Your task to perform on an android device: Empty the shopping cart on bestbuy. Add alienware area 51 to the cart on bestbuy Image 0: 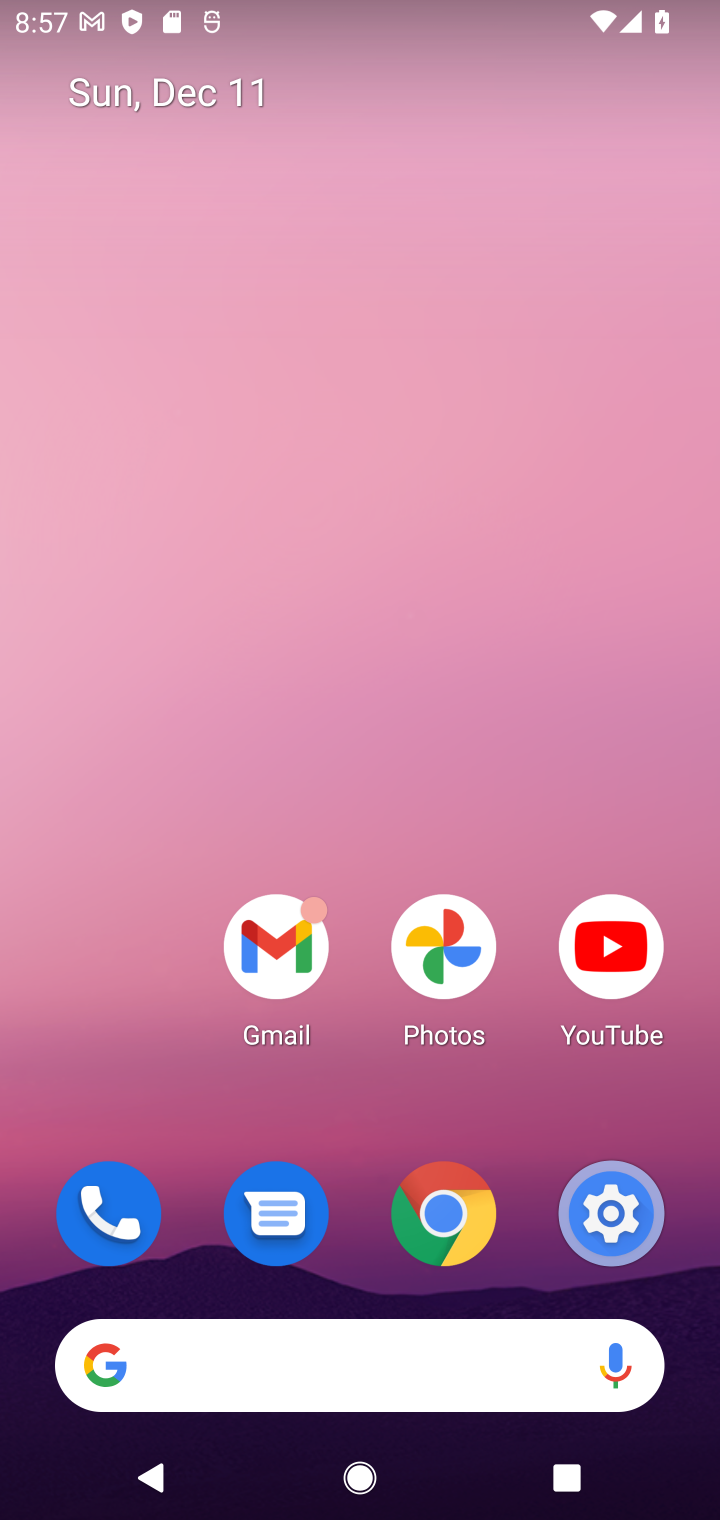
Step 0: click (357, 1383)
Your task to perform on an android device: Empty the shopping cart on bestbuy. Add alienware area 51 to the cart on bestbuy Image 1: 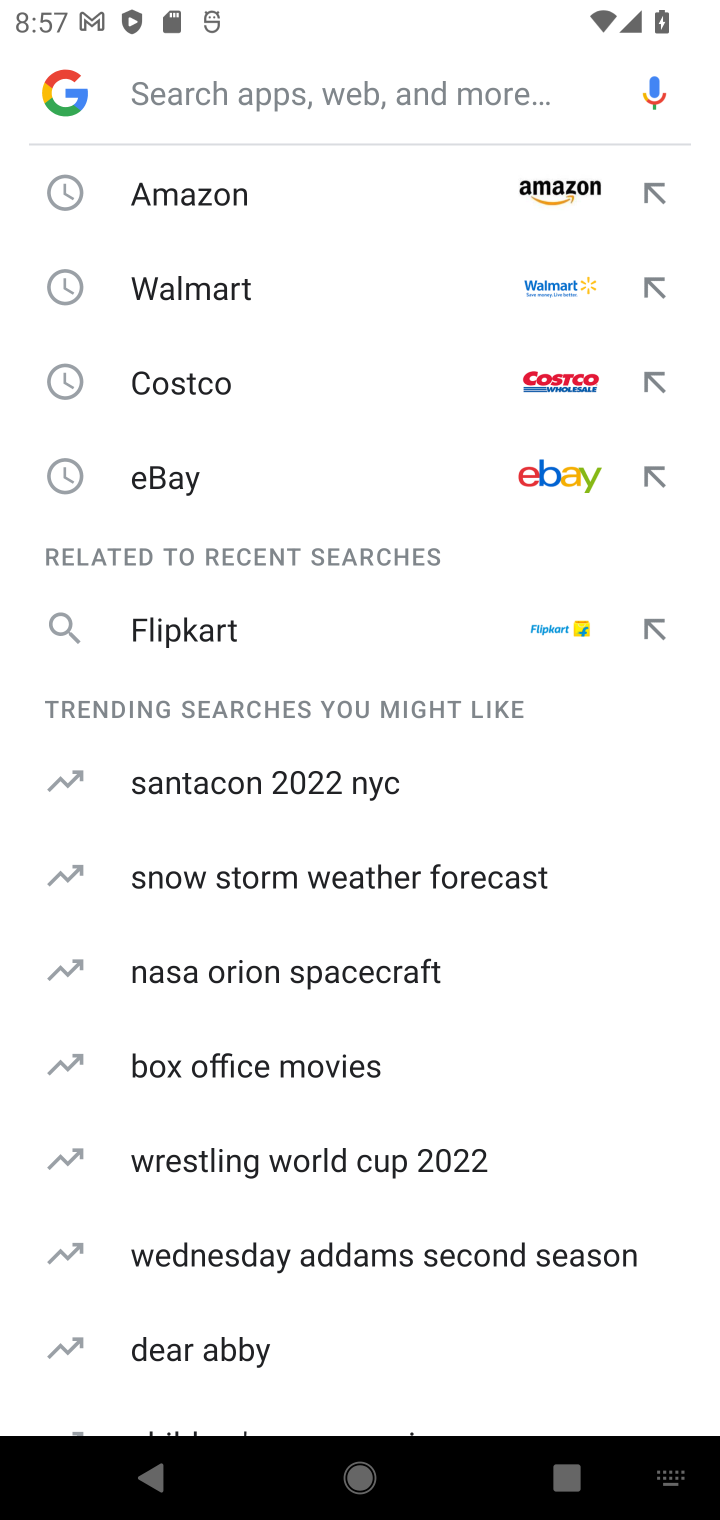
Step 1: type "bestbuy"
Your task to perform on an android device: Empty the shopping cart on bestbuy. Add alienware area 51 to the cart on bestbuy Image 2: 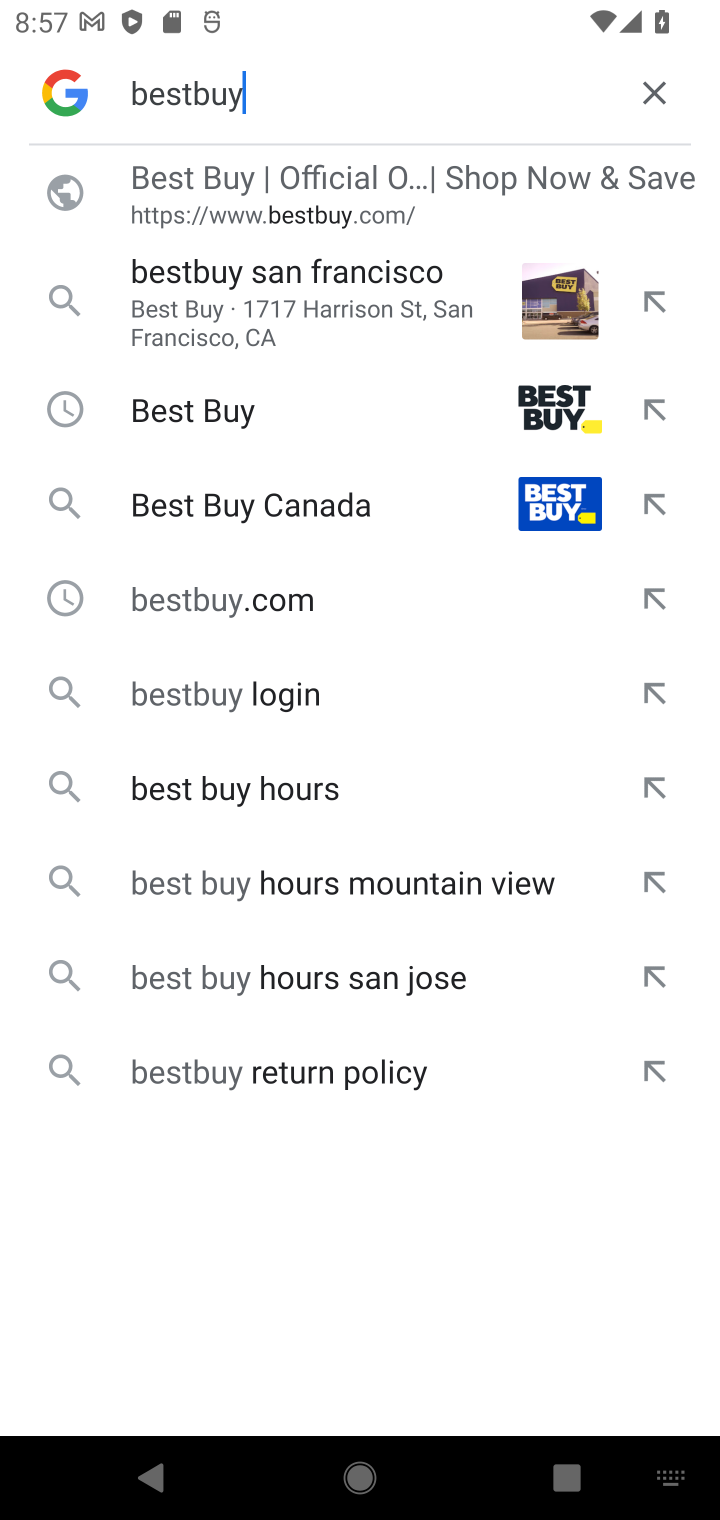
Step 2: click (329, 237)
Your task to perform on an android device: Empty the shopping cart on bestbuy. Add alienware area 51 to the cart on bestbuy Image 3: 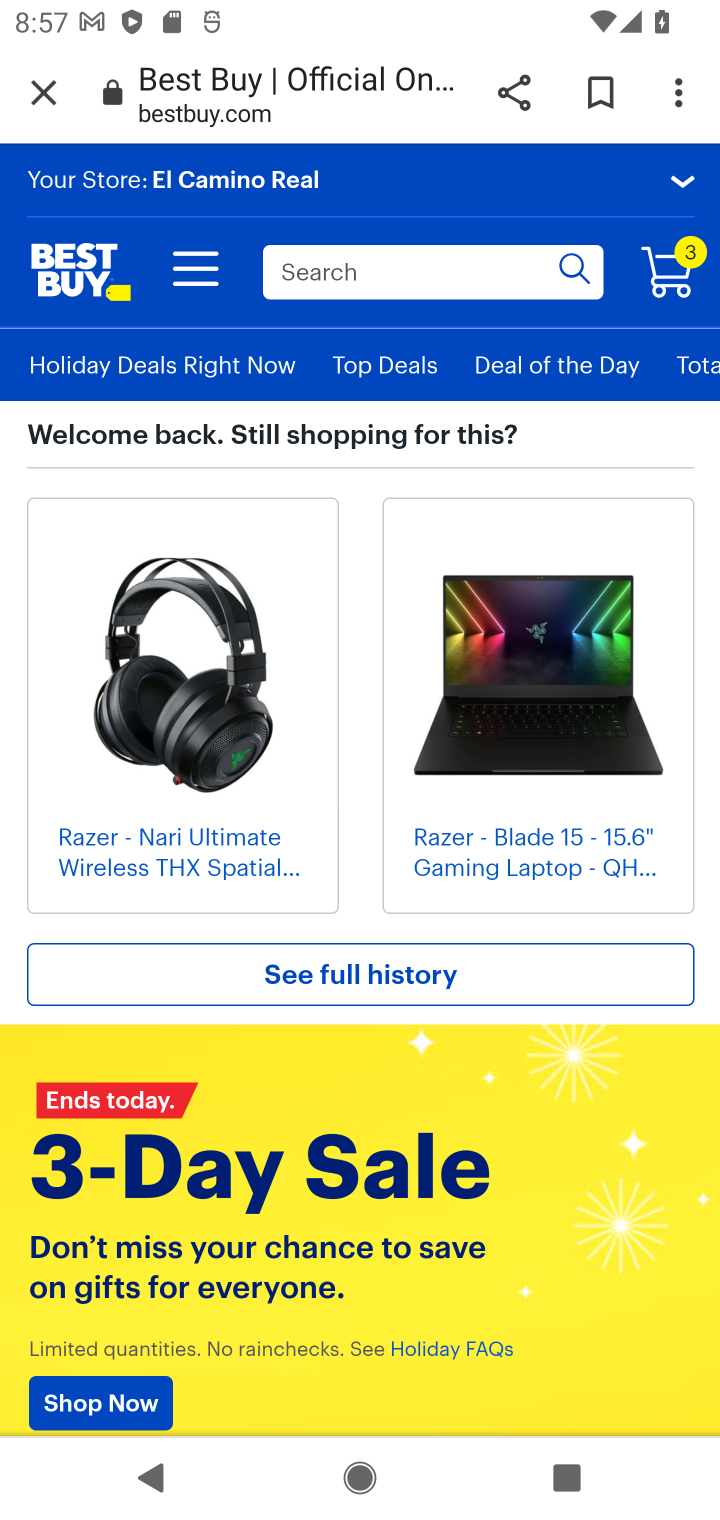
Step 3: click (421, 283)
Your task to perform on an android device: Empty the shopping cart on bestbuy. Add alienware area 51 to the cart on bestbuy Image 4: 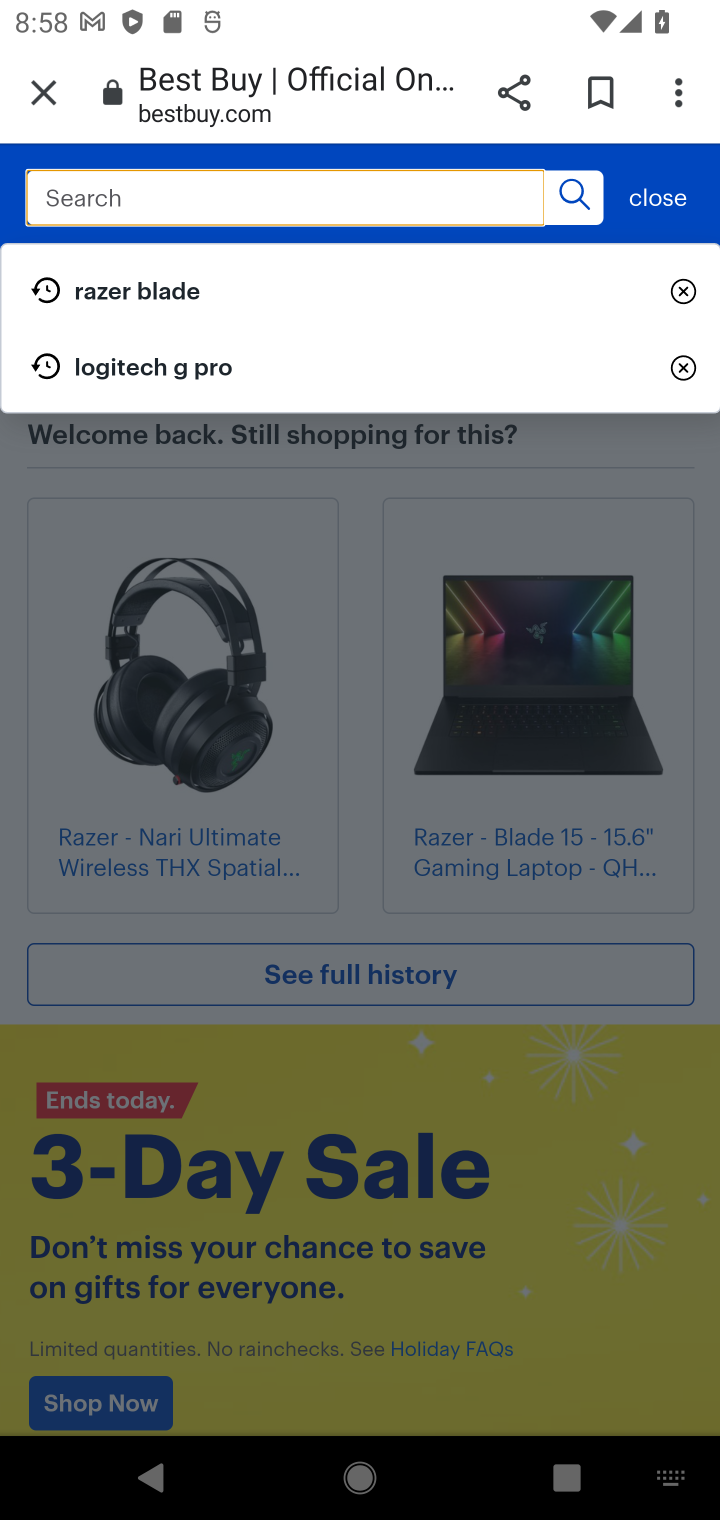
Step 4: type "alienware area 51"
Your task to perform on an android device: Empty the shopping cart on bestbuy. Add alienware area 51 to the cart on bestbuy Image 5: 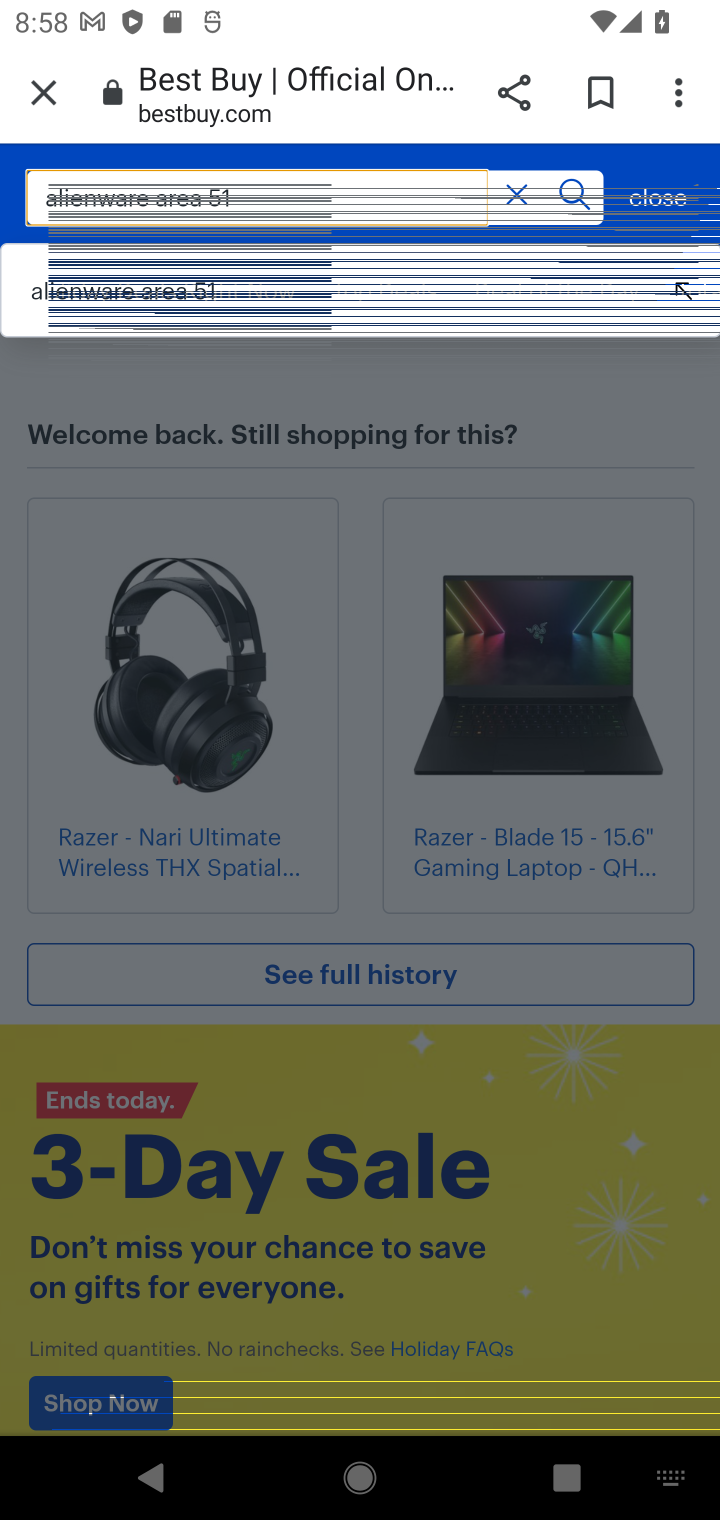
Step 5: click (581, 208)
Your task to perform on an android device: Empty the shopping cart on bestbuy. Add alienware area 51 to the cart on bestbuy Image 6: 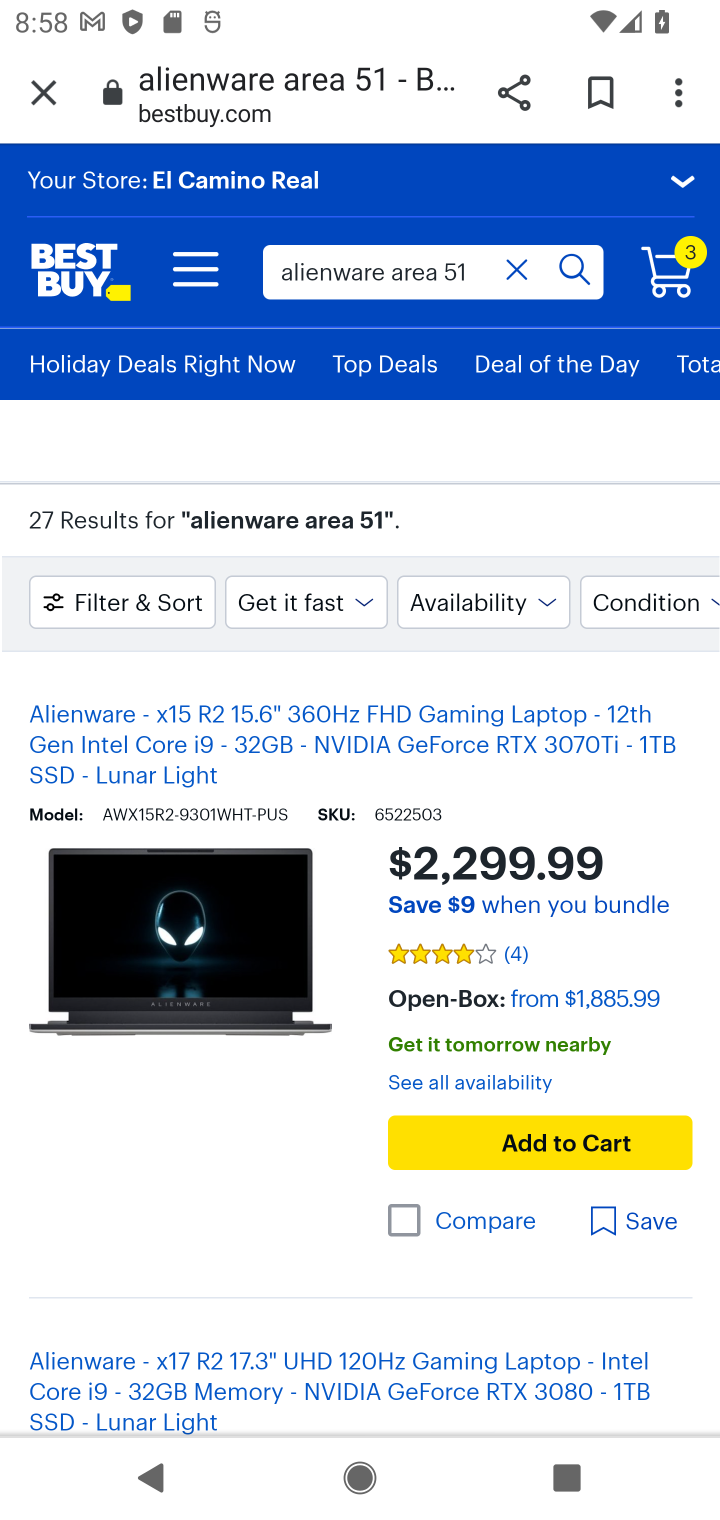
Step 6: click (460, 1151)
Your task to perform on an android device: Empty the shopping cart on bestbuy. Add alienware area 51 to the cart on bestbuy Image 7: 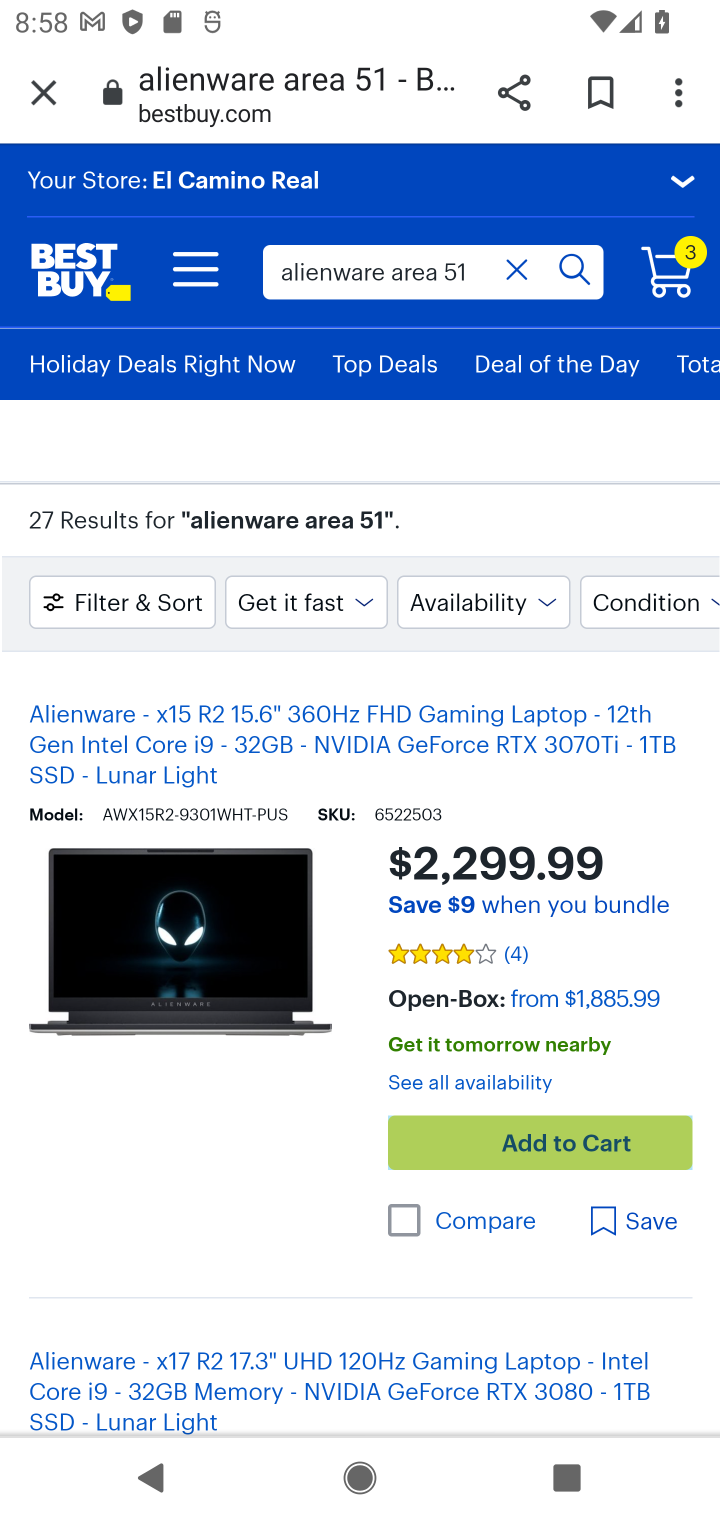
Step 7: task complete